Your task to perform on an android device: Go to wifi settings Image 0: 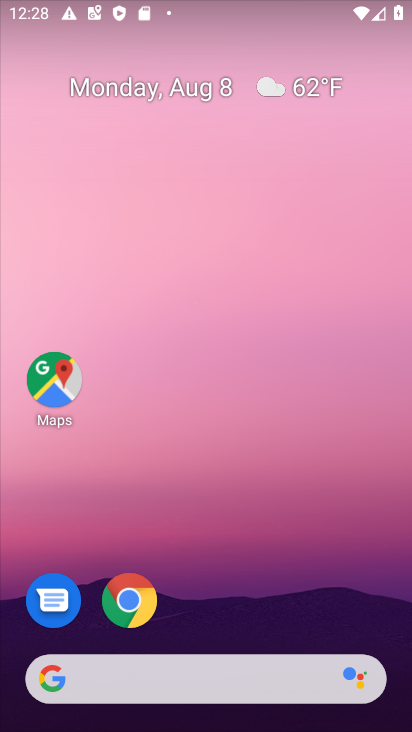
Step 0: drag from (215, 608) to (206, 209)
Your task to perform on an android device: Go to wifi settings Image 1: 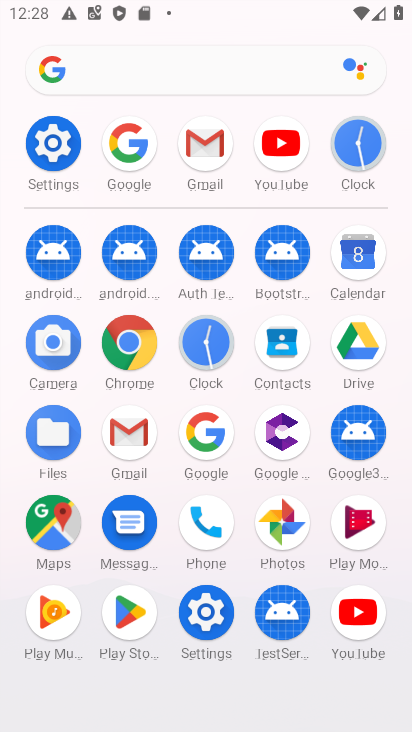
Step 1: click (55, 140)
Your task to perform on an android device: Go to wifi settings Image 2: 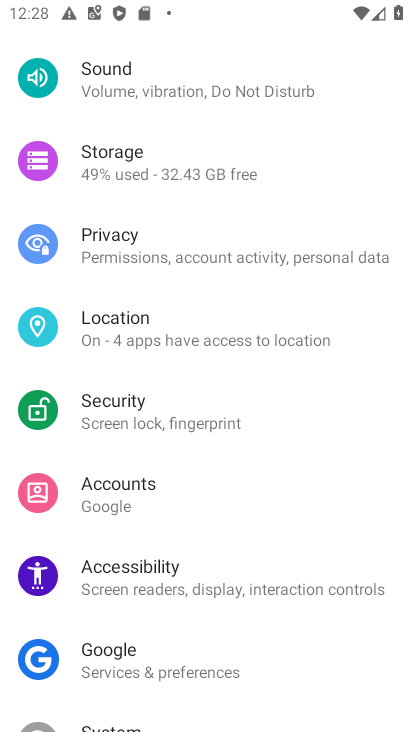
Step 2: drag from (130, 147) to (139, 597)
Your task to perform on an android device: Go to wifi settings Image 3: 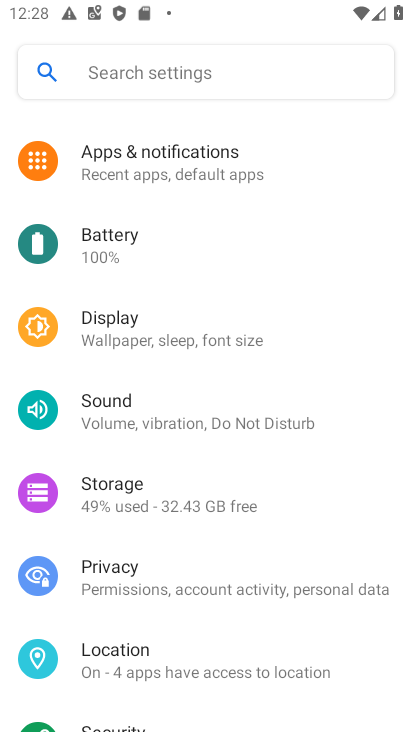
Step 3: drag from (207, 201) to (225, 536)
Your task to perform on an android device: Go to wifi settings Image 4: 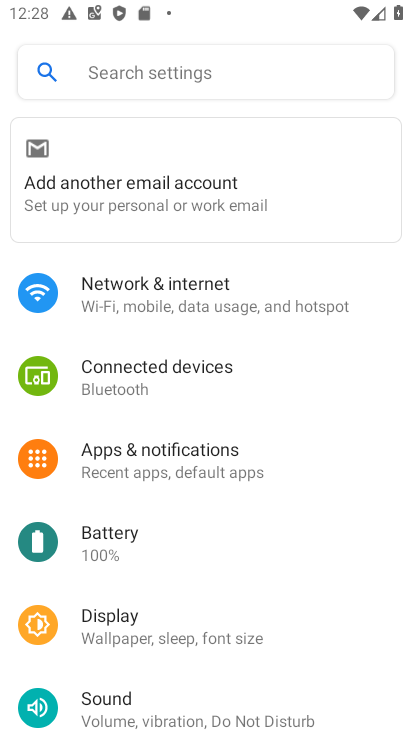
Step 4: click (161, 292)
Your task to perform on an android device: Go to wifi settings Image 5: 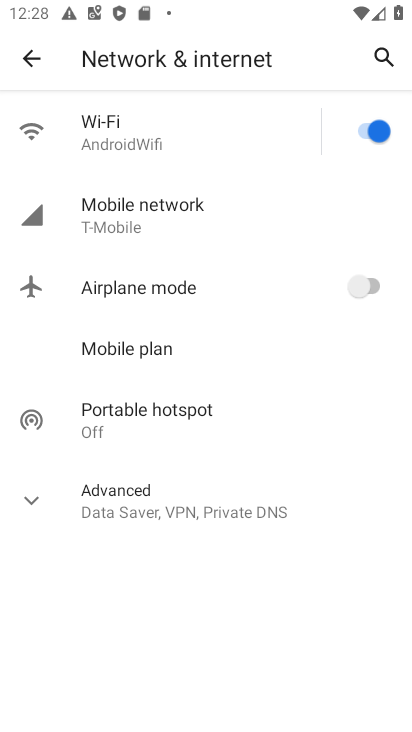
Step 5: click (167, 135)
Your task to perform on an android device: Go to wifi settings Image 6: 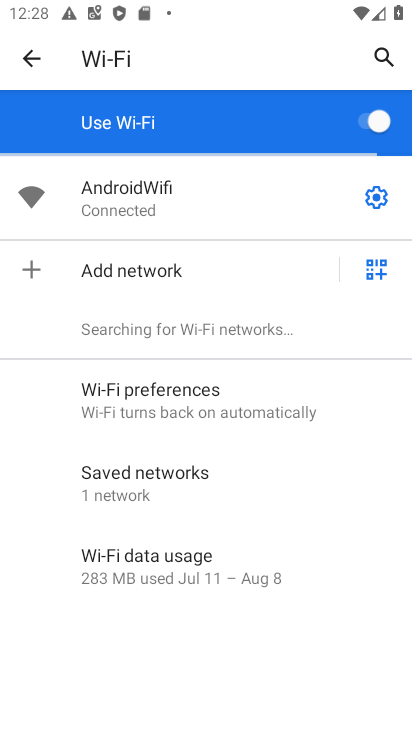
Step 6: task complete